Your task to perform on an android device: What's on my calendar today? Image 0: 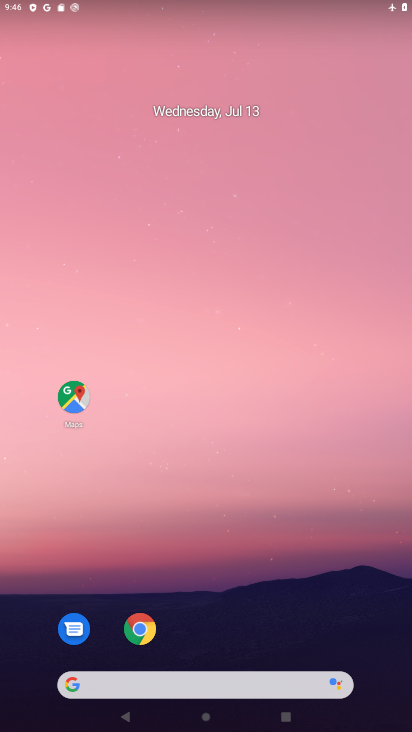
Step 0: drag from (274, 646) to (246, 90)
Your task to perform on an android device: What's on my calendar today? Image 1: 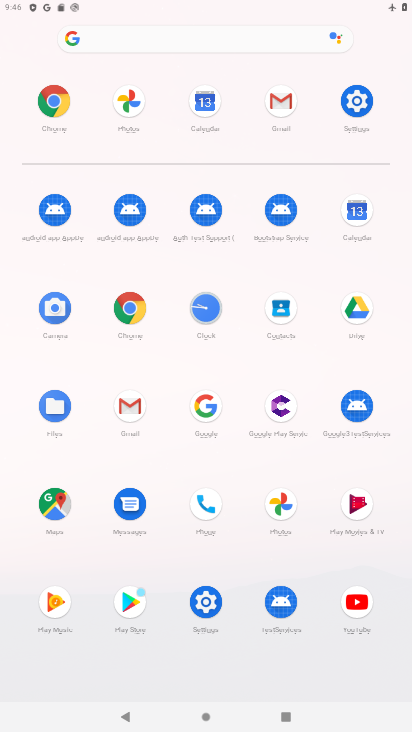
Step 1: click (217, 120)
Your task to perform on an android device: What's on my calendar today? Image 2: 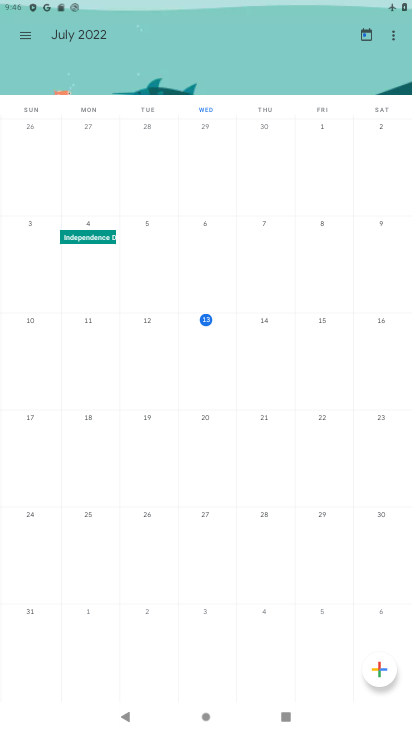
Step 2: task complete